Your task to perform on an android device: Open Google Chrome and open the bookmarks view Image 0: 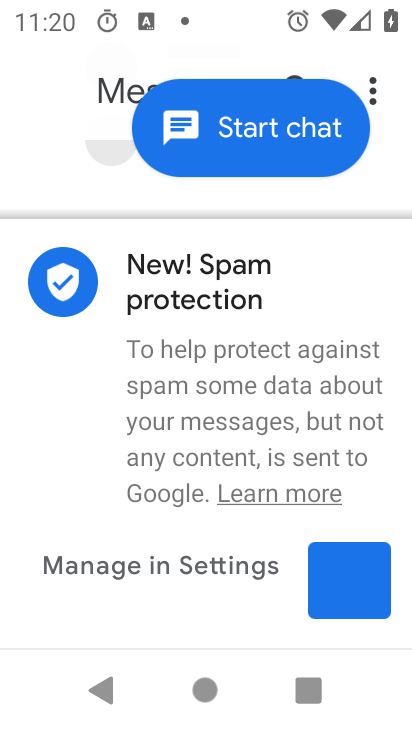
Step 0: press home button
Your task to perform on an android device: Open Google Chrome and open the bookmarks view Image 1: 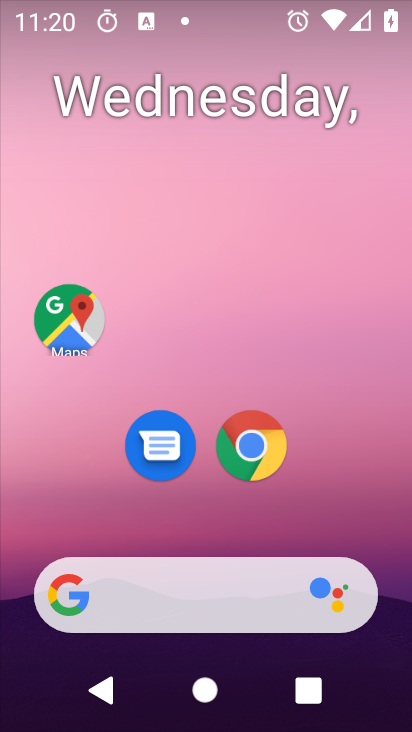
Step 1: drag from (377, 456) to (391, 147)
Your task to perform on an android device: Open Google Chrome and open the bookmarks view Image 2: 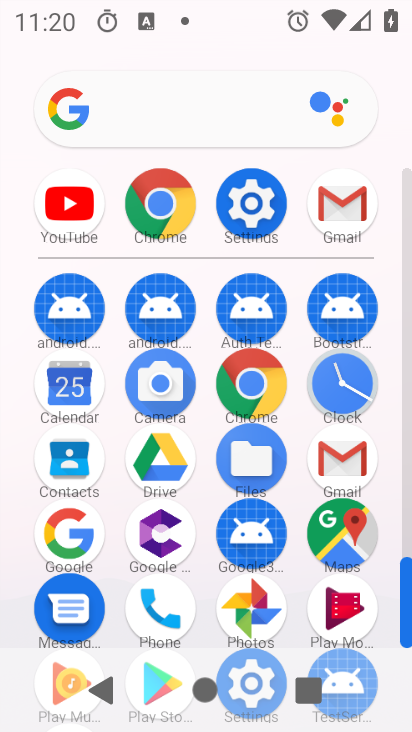
Step 2: click (167, 233)
Your task to perform on an android device: Open Google Chrome and open the bookmarks view Image 3: 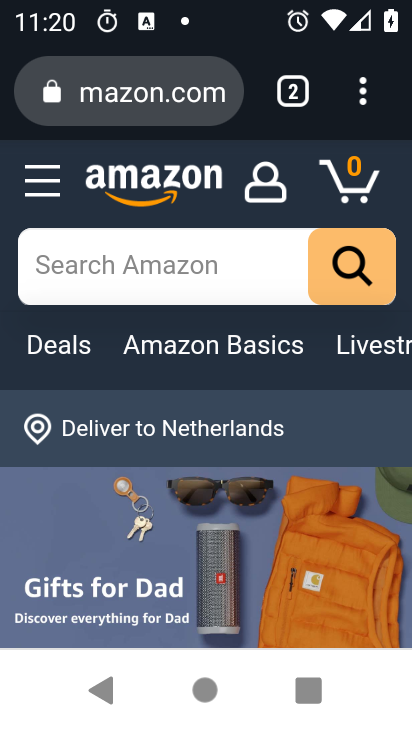
Step 3: task complete